Your task to perform on an android device: Open calendar and show me the first week of next month Image 0: 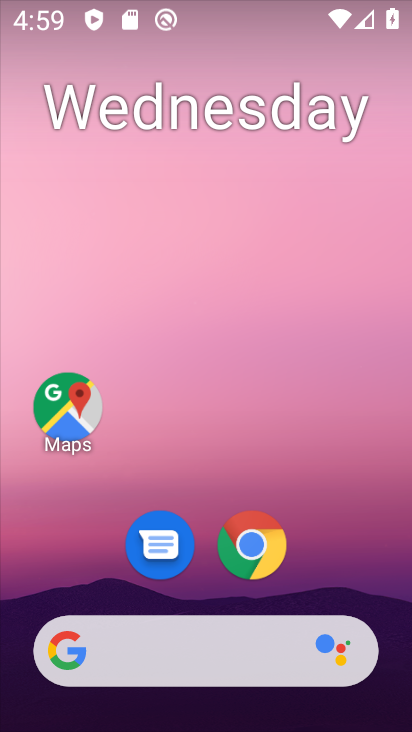
Step 0: drag from (345, 575) to (362, 120)
Your task to perform on an android device: Open calendar and show me the first week of next month Image 1: 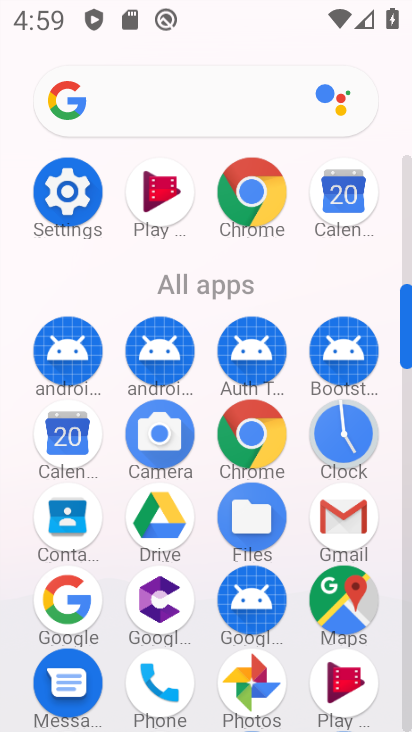
Step 1: click (59, 432)
Your task to perform on an android device: Open calendar and show me the first week of next month Image 2: 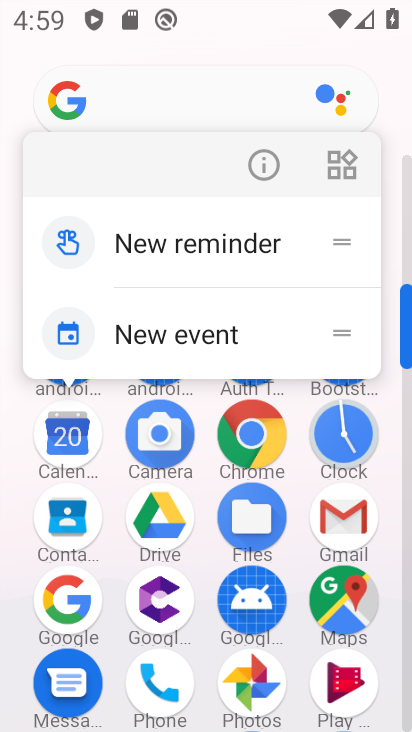
Step 2: click (59, 432)
Your task to perform on an android device: Open calendar and show me the first week of next month Image 3: 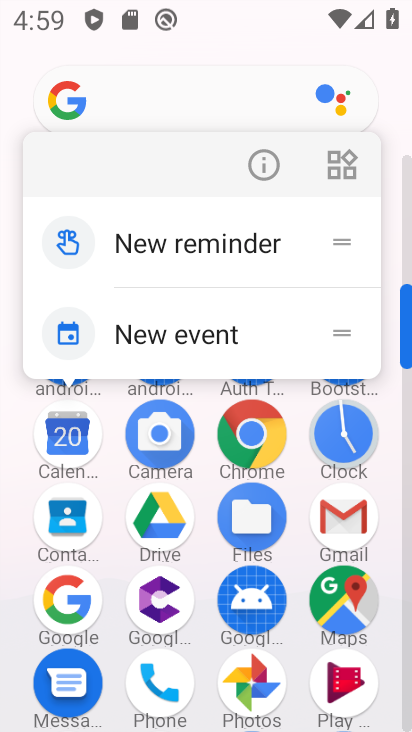
Step 3: click (82, 441)
Your task to perform on an android device: Open calendar and show me the first week of next month Image 4: 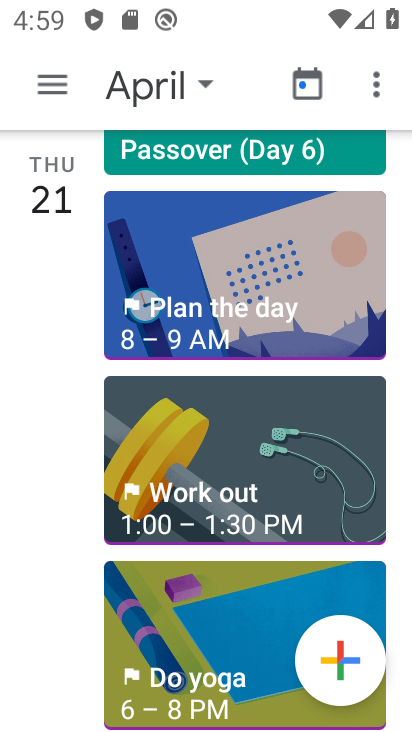
Step 4: click (134, 66)
Your task to perform on an android device: Open calendar and show me the first week of next month Image 5: 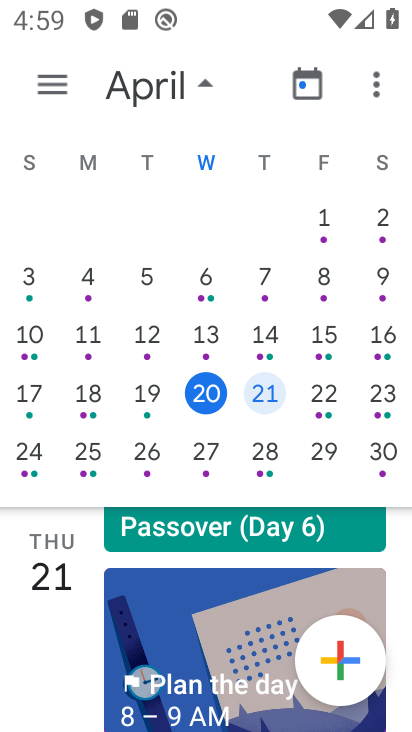
Step 5: drag from (385, 285) to (122, 274)
Your task to perform on an android device: Open calendar and show me the first week of next month Image 6: 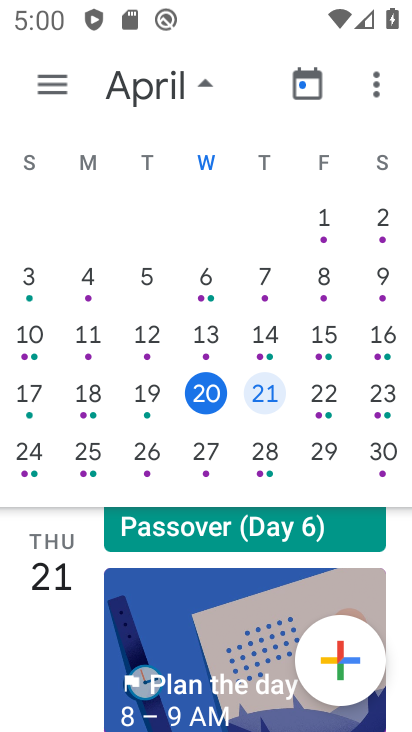
Step 6: drag from (361, 345) to (30, 317)
Your task to perform on an android device: Open calendar and show me the first week of next month Image 7: 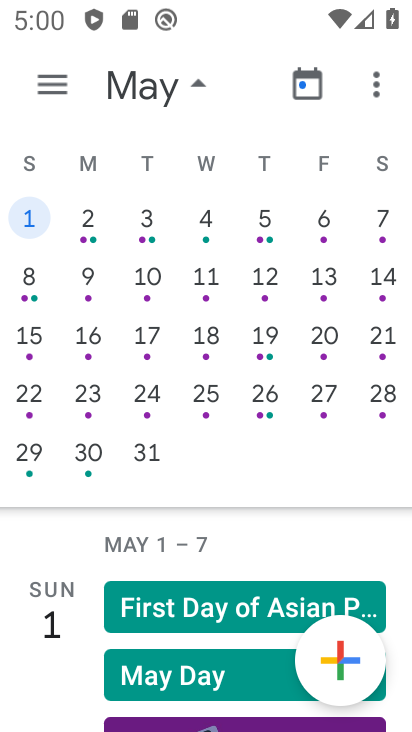
Step 7: click (150, 219)
Your task to perform on an android device: Open calendar and show me the first week of next month Image 8: 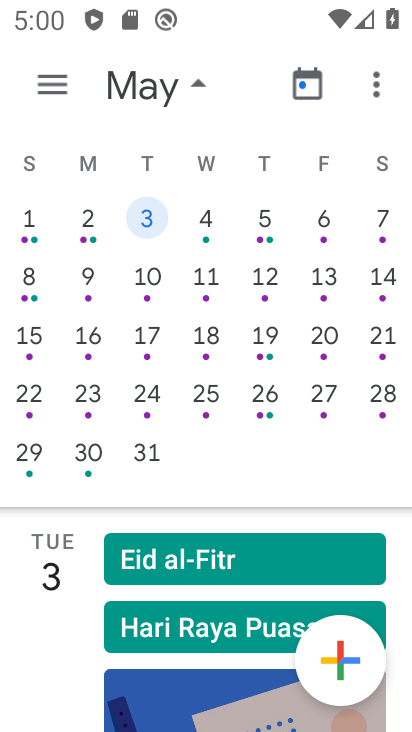
Step 8: task complete